Your task to perform on an android device: open app "Venmo" Image 0: 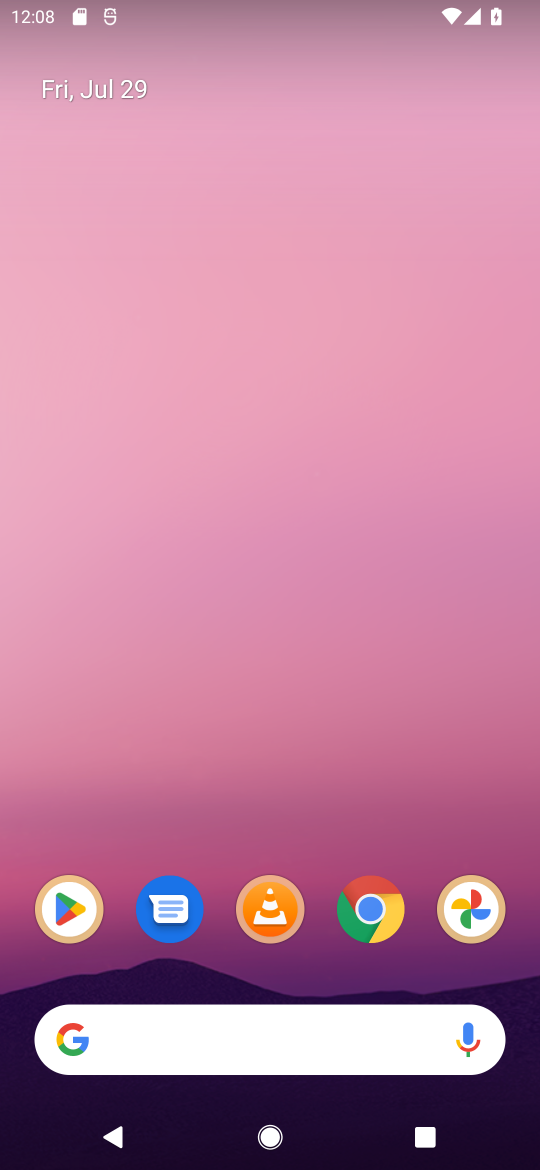
Step 0: click (431, 859)
Your task to perform on an android device: open app "Venmo" Image 1: 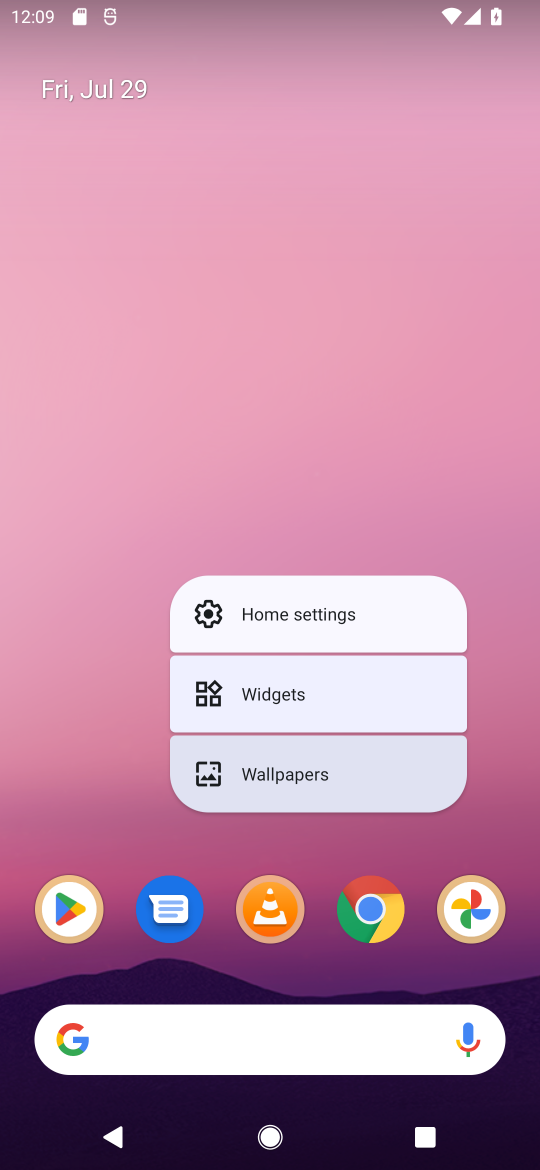
Step 1: click (79, 911)
Your task to perform on an android device: open app "Venmo" Image 2: 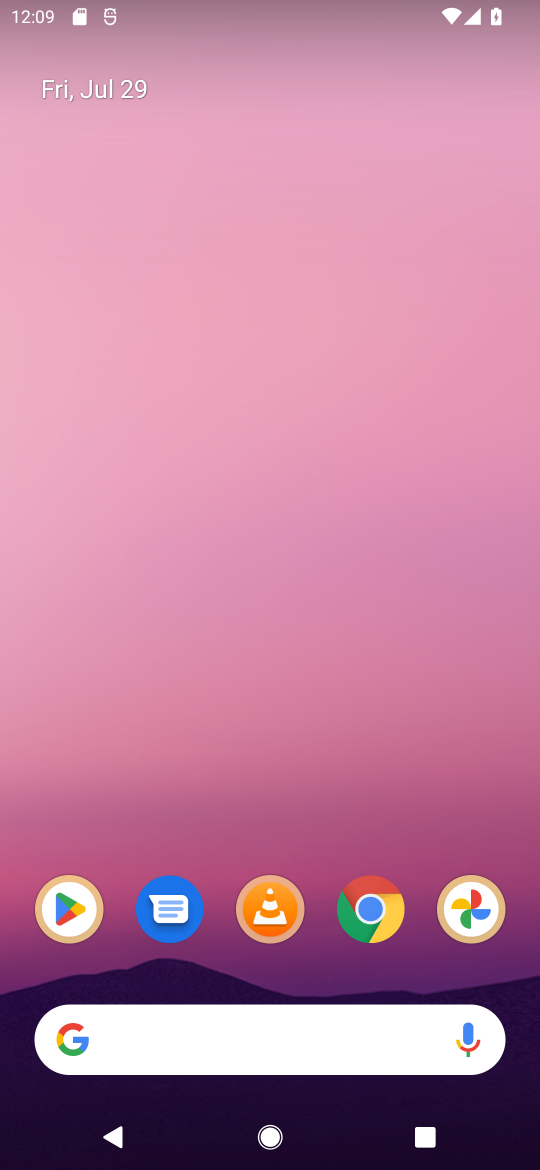
Step 2: click (79, 911)
Your task to perform on an android device: open app "Venmo" Image 3: 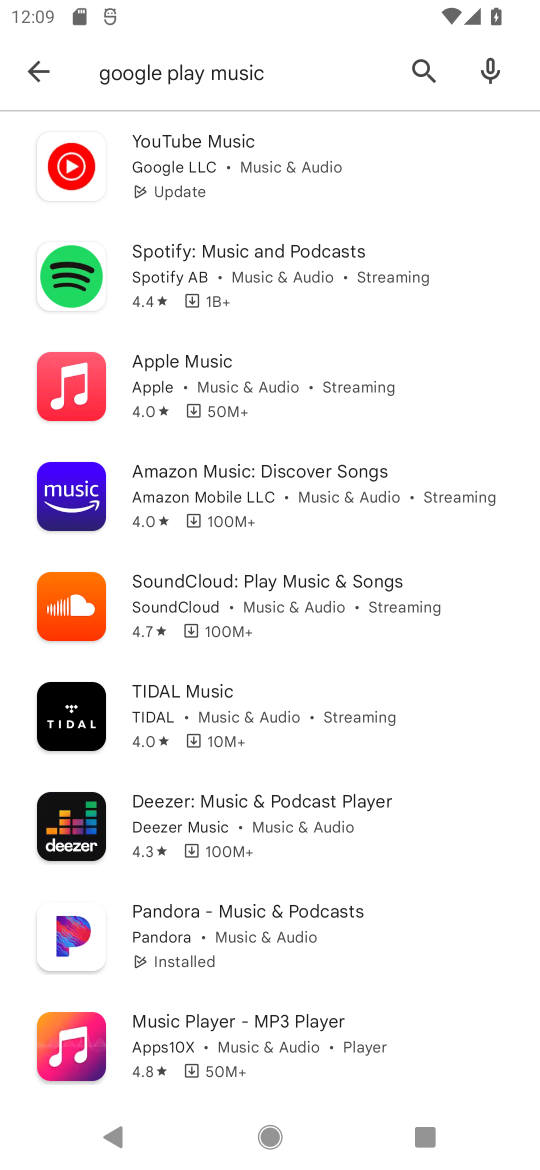
Step 3: click (420, 63)
Your task to perform on an android device: open app "Venmo" Image 4: 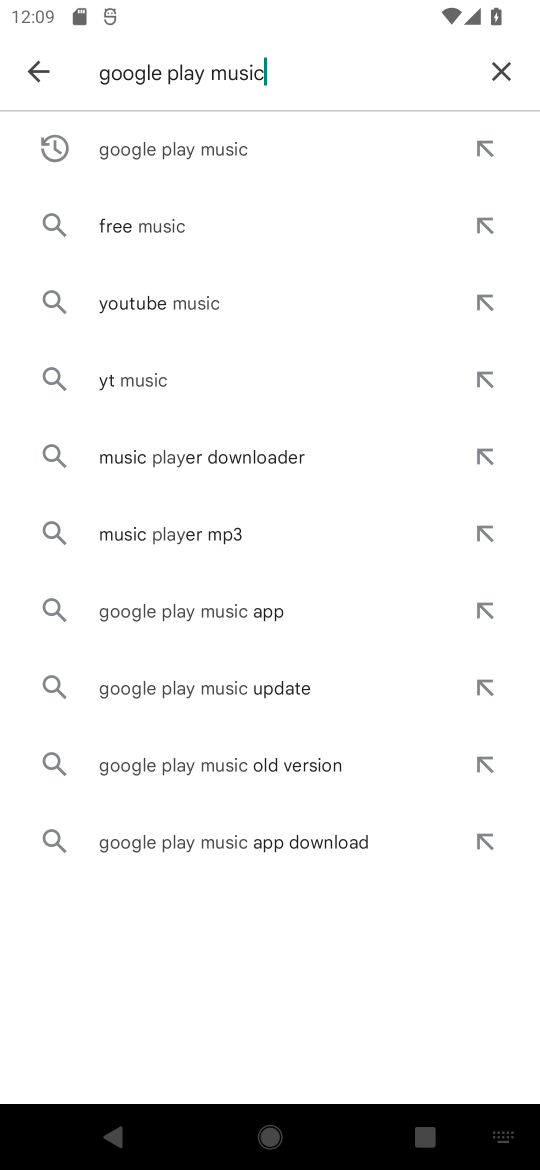
Step 4: click (500, 63)
Your task to perform on an android device: open app "Venmo" Image 5: 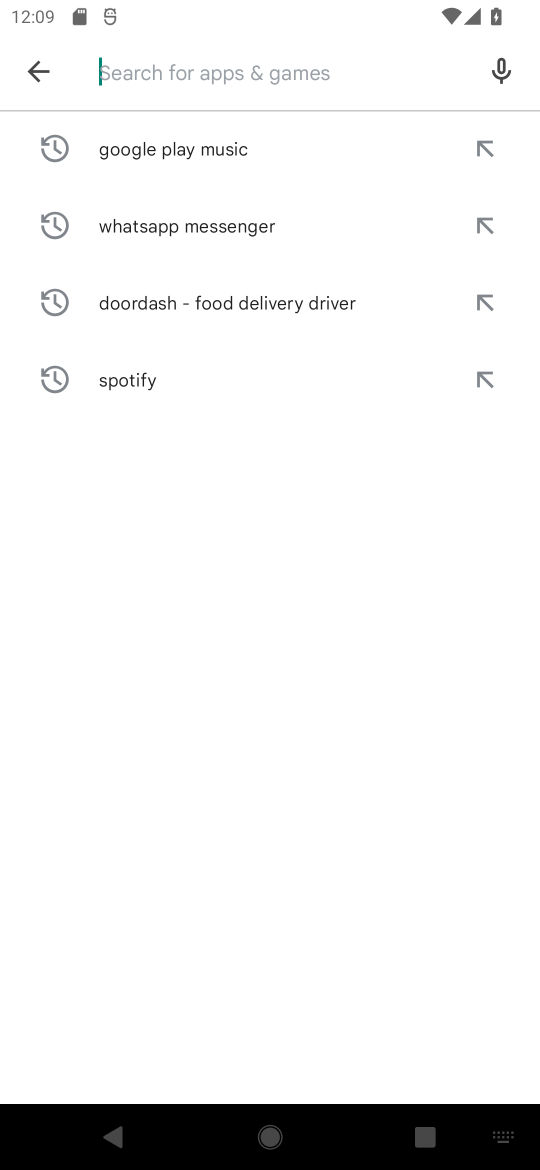
Step 5: type "Venmo"
Your task to perform on an android device: open app "Venmo" Image 6: 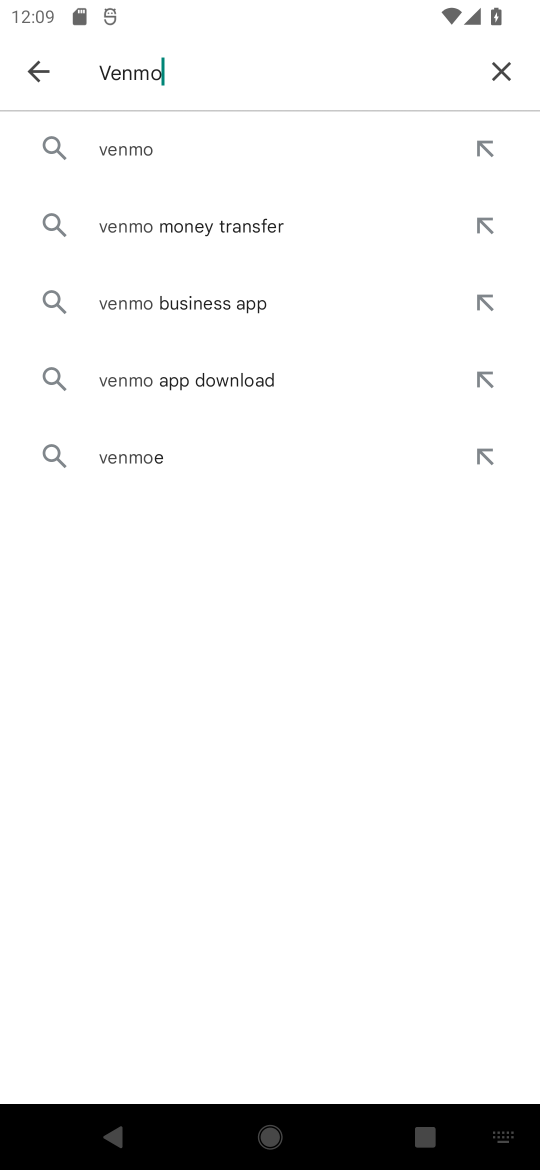
Step 6: click (130, 138)
Your task to perform on an android device: open app "Venmo" Image 7: 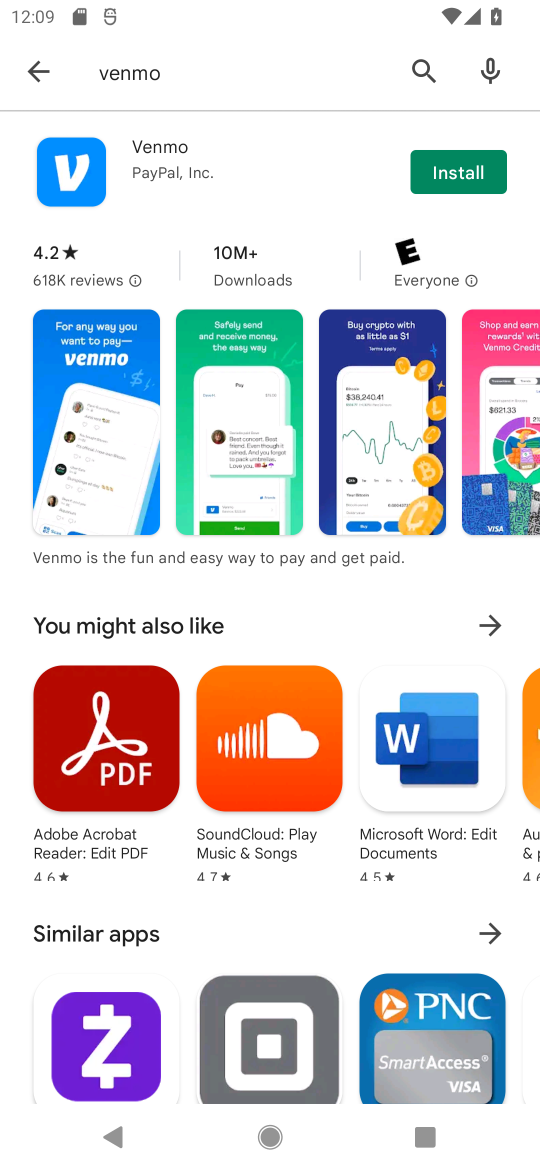
Step 7: task complete